Your task to perform on an android device: Find coffee shops on Maps Image 0: 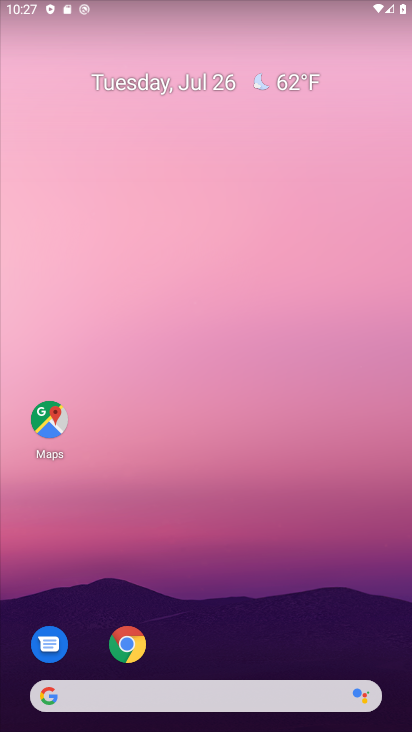
Step 0: drag from (291, 293) to (316, 109)
Your task to perform on an android device: Find coffee shops on Maps Image 1: 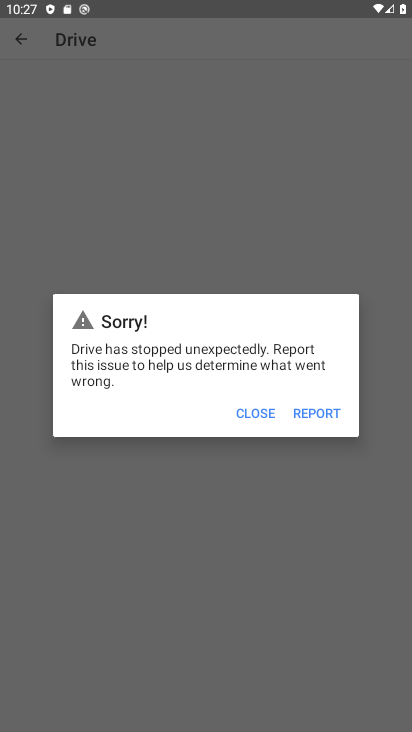
Step 1: press home button
Your task to perform on an android device: Find coffee shops on Maps Image 2: 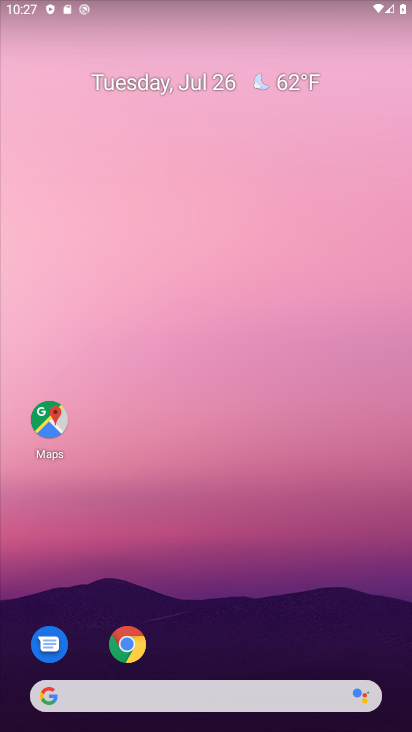
Step 2: click (57, 429)
Your task to perform on an android device: Find coffee shops on Maps Image 3: 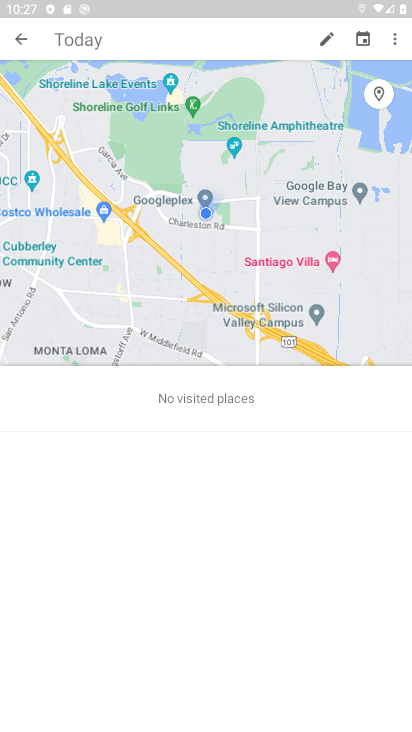
Step 3: click (11, 39)
Your task to perform on an android device: Find coffee shops on Maps Image 4: 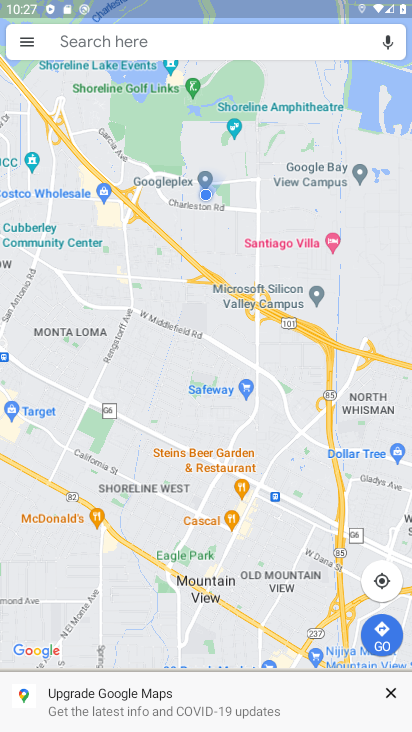
Step 4: click (192, 42)
Your task to perform on an android device: Find coffee shops on Maps Image 5: 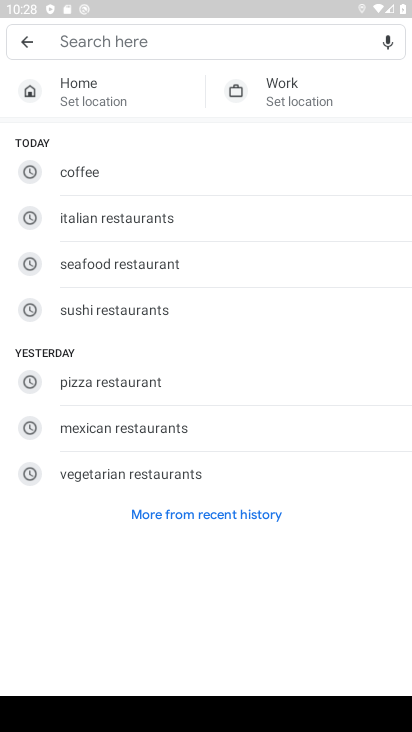
Step 5: click (106, 165)
Your task to perform on an android device: Find coffee shops on Maps Image 6: 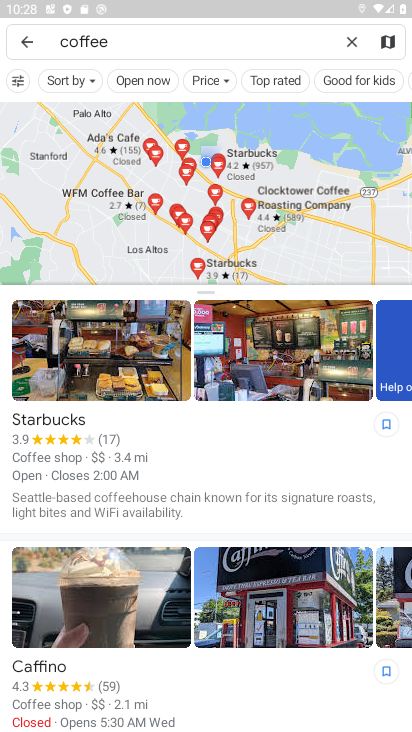
Step 6: task complete